Your task to perform on an android device: Open maps Image 0: 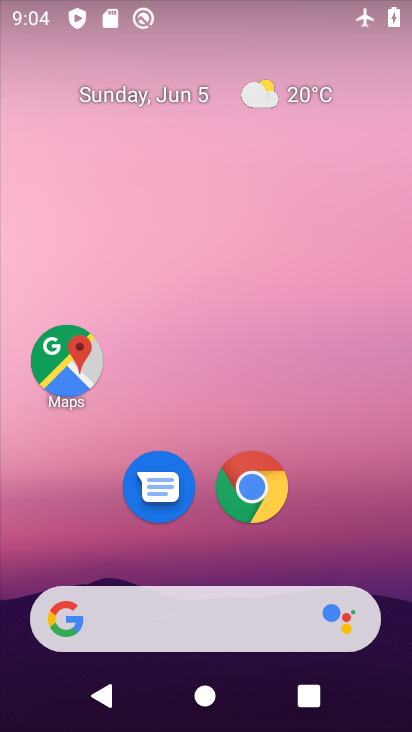
Step 0: drag from (238, 525) to (222, 262)
Your task to perform on an android device: Open maps Image 1: 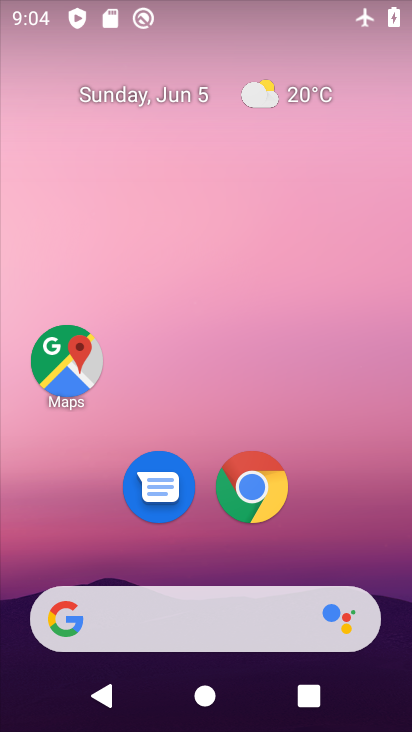
Step 1: drag from (257, 501) to (272, 171)
Your task to perform on an android device: Open maps Image 2: 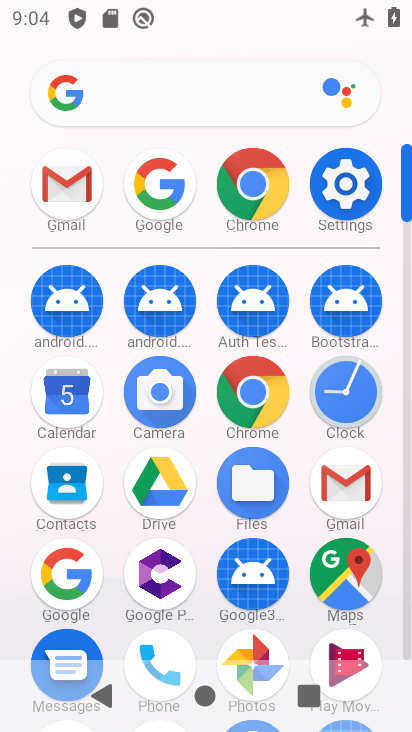
Step 2: click (340, 576)
Your task to perform on an android device: Open maps Image 3: 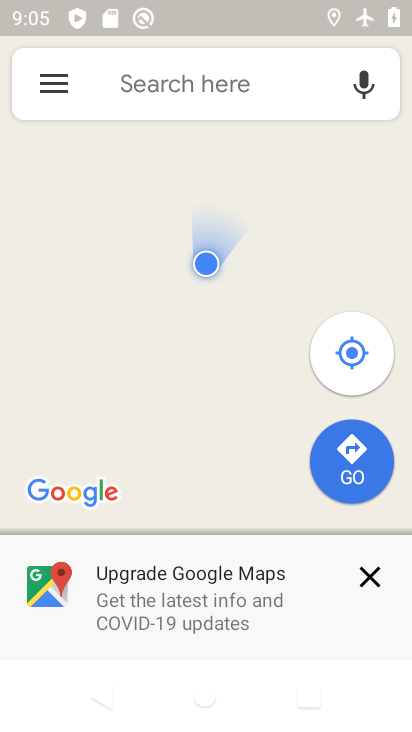
Step 3: task complete